Your task to perform on an android device: Go to settings Image 0: 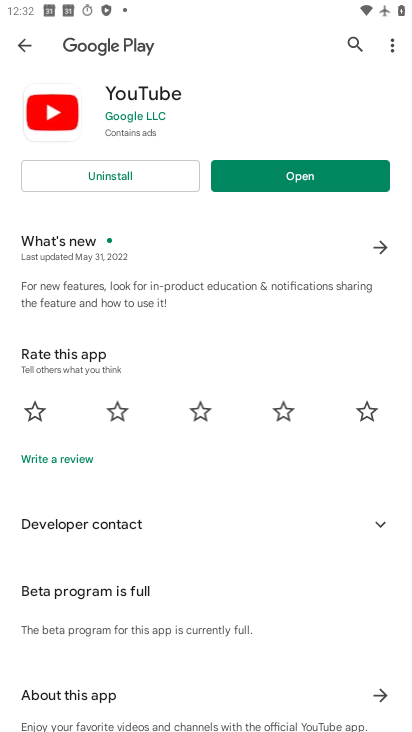
Step 0: press home button
Your task to perform on an android device: Go to settings Image 1: 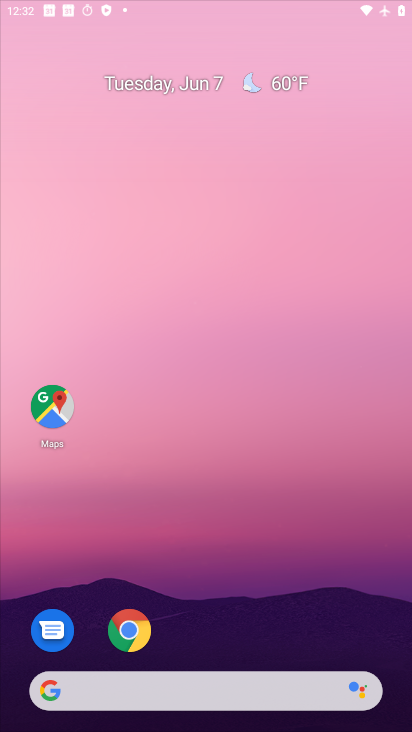
Step 1: drag from (346, 621) to (216, 1)
Your task to perform on an android device: Go to settings Image 2: 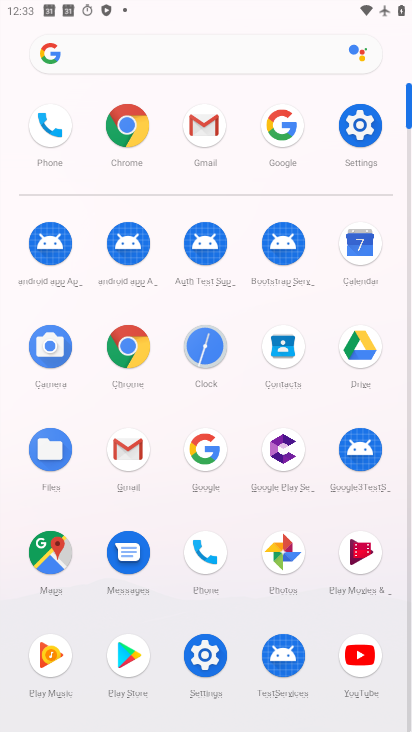
Step 2: click (205, 654)
Your task to perform on an android device: Go to settings Image 3: 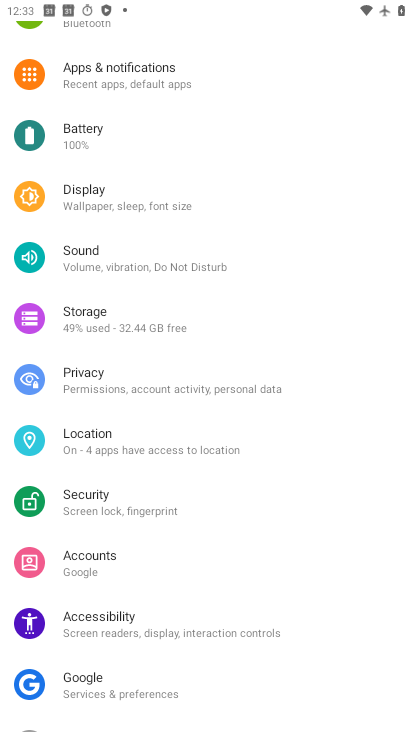
Step 3: task complete